Your task to perform on an android device: When is my next appointment? Image 0: 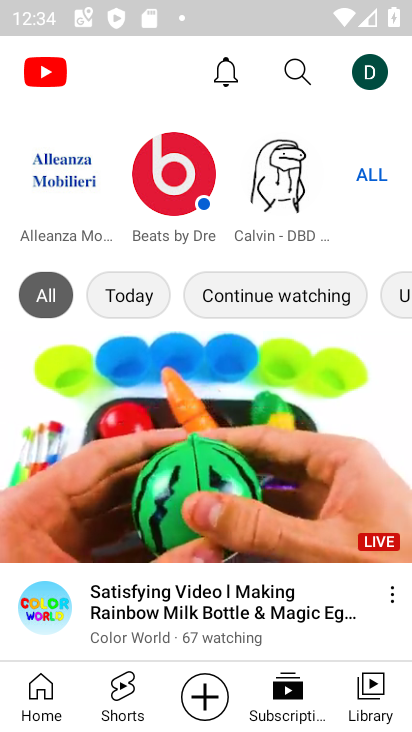
Step 0: press home button
Your task to perform on an android device: When is my next appointment? Image 1: 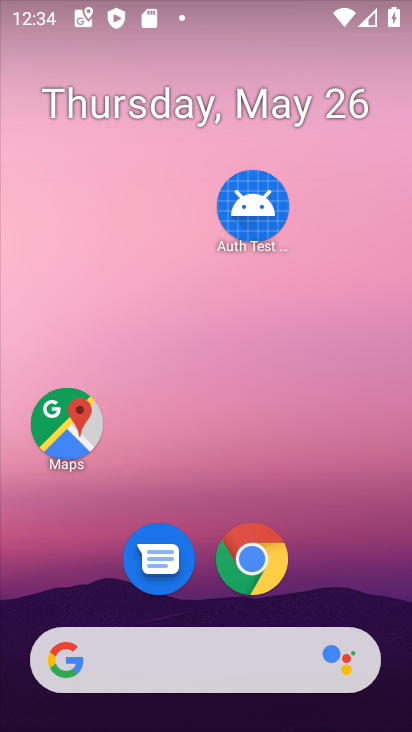
Step 1: drag from (360, 554) to (344, 85)
Your task to perform on an android device: When is my next appointment? Image 2: 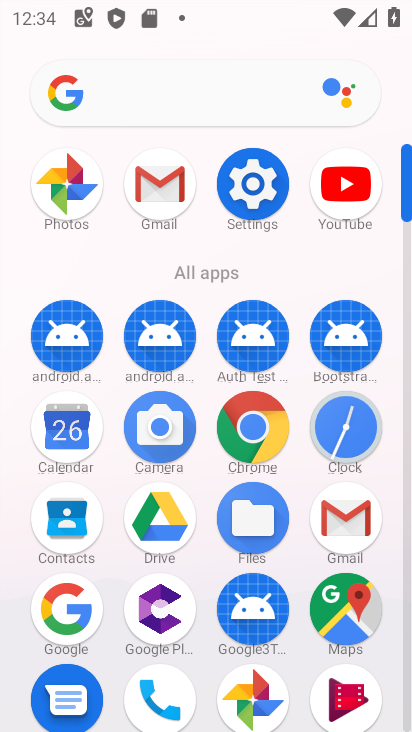
Step 2: click (70, 409)
Your task to perform on an android device: When is my next appointment? Image 3: 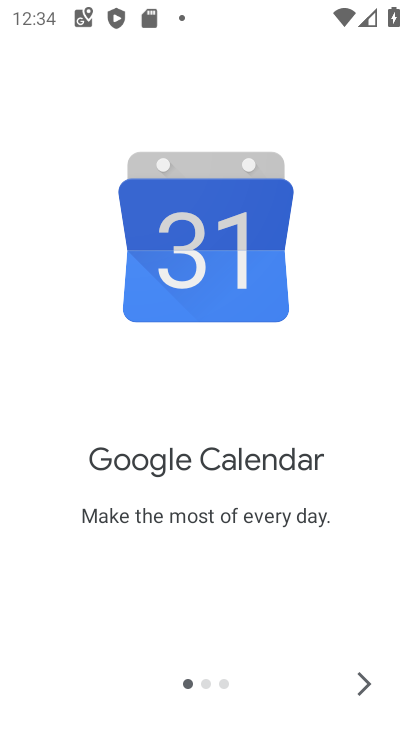
Step 3: click (364, 675)
Your task to perform on an android device: When is my next appointment? Image 4: 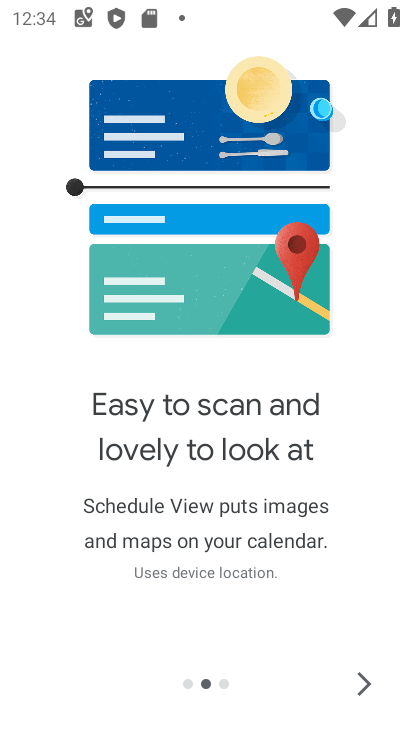
Step 4: click (365, 675)
Your task to perform on an android device: When is my next appointment? Image 5: 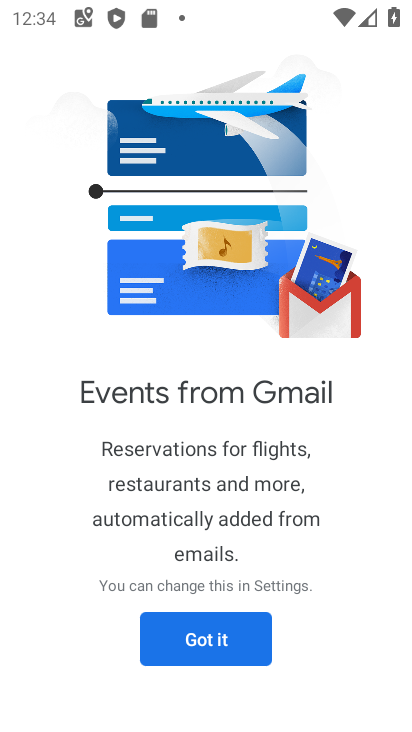
Step 5: click (214, 641)
Your task to perform on an android device: When is my next appointment? Image 6: 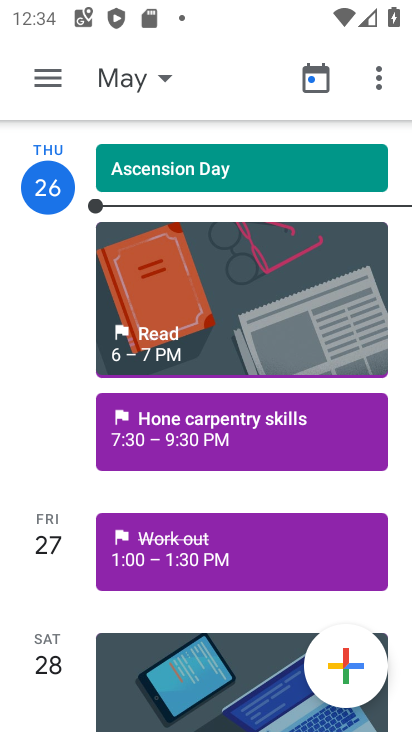
Step 6: drag from (260, 586) to (193, 278)
Your task to perform on an android device: When is my next appointment? Image 7: 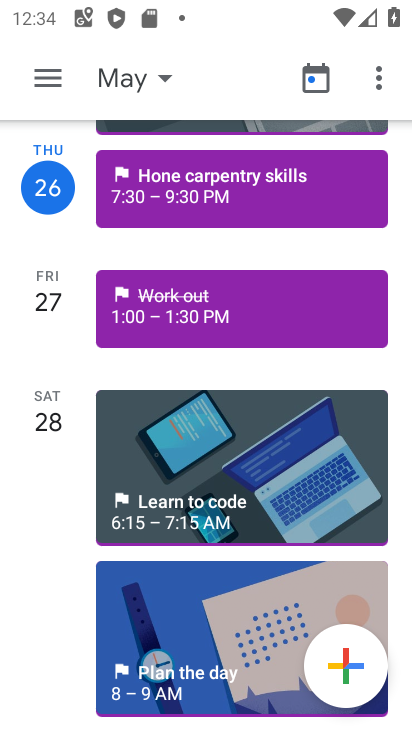
Step 7: drag from (217, 610) to (205, 204)
Your task to perform on an android device: When is my next appointment? Image 8: 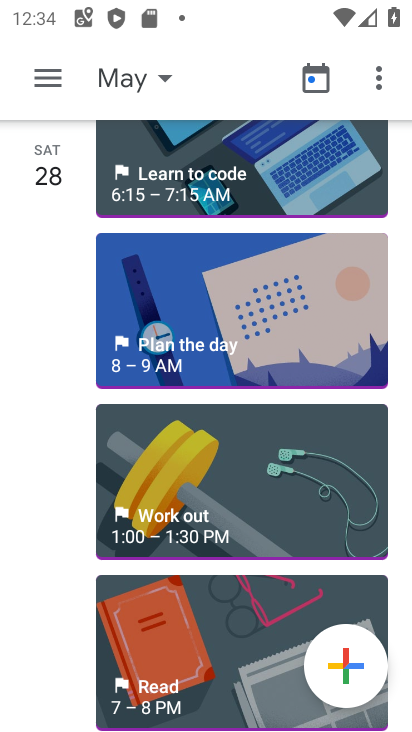
Step 8: drag from (170, 659) to (181, 308)
Your task to perform on an android device: When is my next appointment? Image 9: 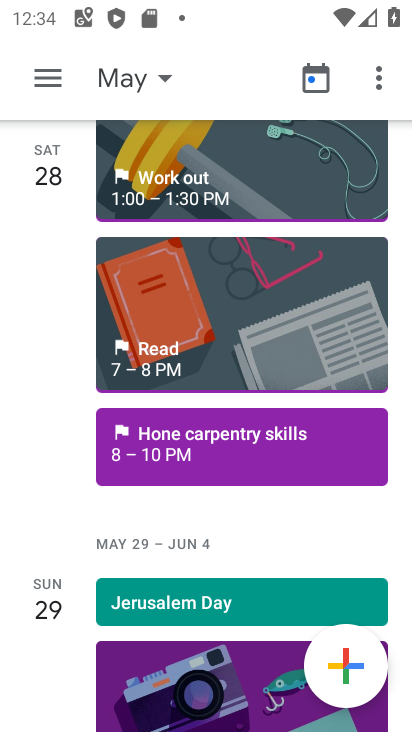
Step 9: drag from (220, 646) to (192, 405)
Your task to perform on an android device: When is my next appointment? Image 10: 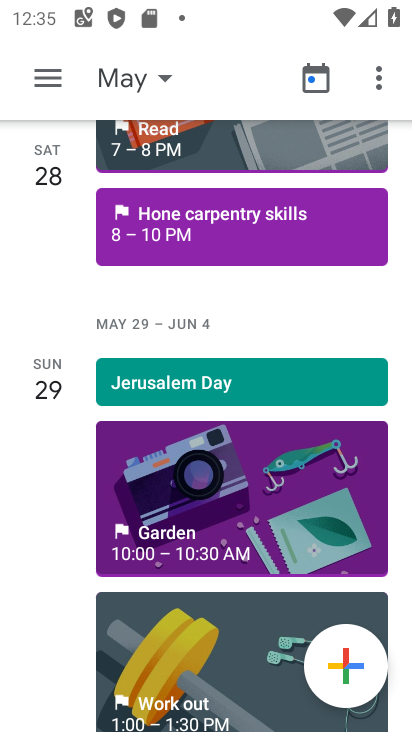
Step 10: drag from (188, 616) to (184, 210)
Your task to perform on an android device: When is my next appointment? Image 11: 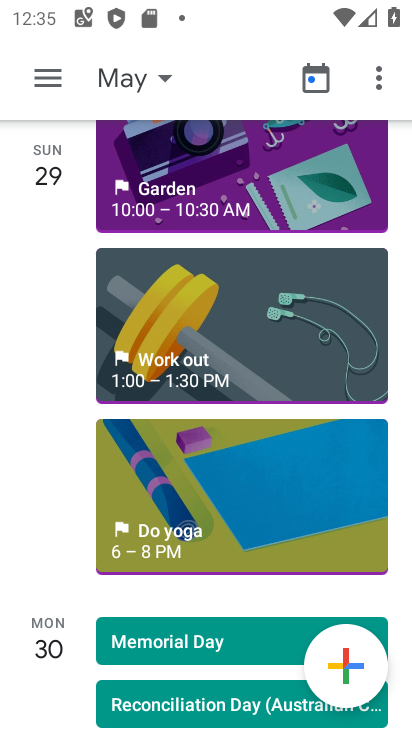
Step 11: drag from (202, 676) to (162, 283)
Your task to perform on an android device: When is my next appointment? Image 12: 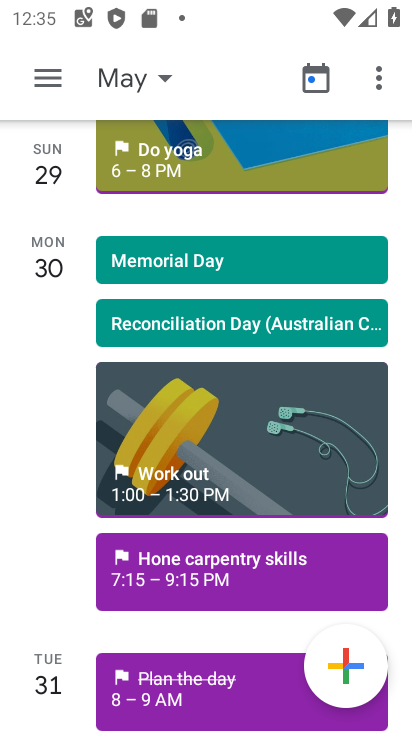
Step 12: drag from (185, 675) to (155, 284)
Your task to perform on an android device: When is my next appointment? Image 13: 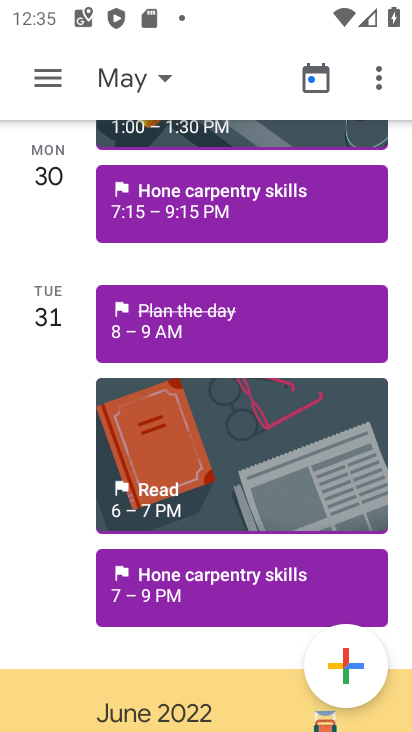
Step 13: drag from (180, 624) to (159, 228)
Your task to perform on an android device: When is my next appointment? Image 14: 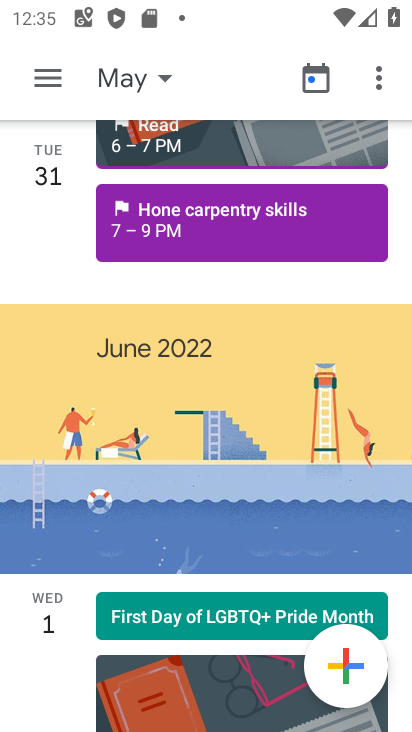
Step 14: drag from (170, 685) to (148, 335)
Your task to perform on an android device: When is my next appointment? Image 15: 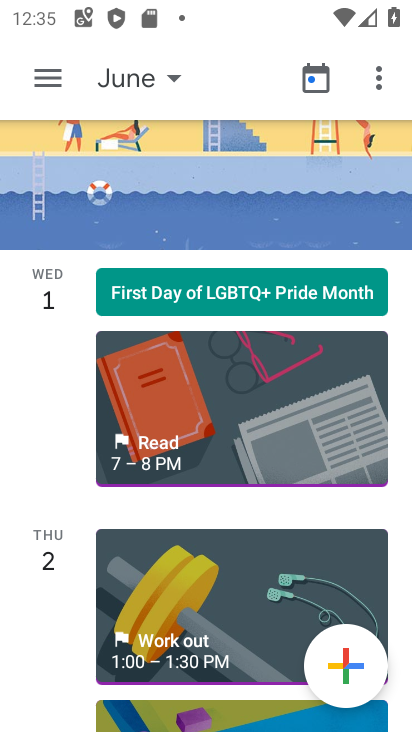
Step 15: click (149, 336)
Your task to perform on an android device: When is my next appointment? Image 16: 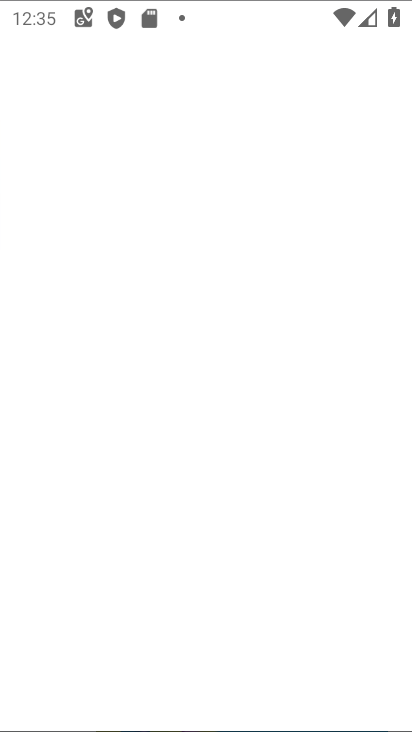
Step 16: drag from (174, 591) to (139, 165)
Your task to perform on an android device: When is my next appointment? Image 17: 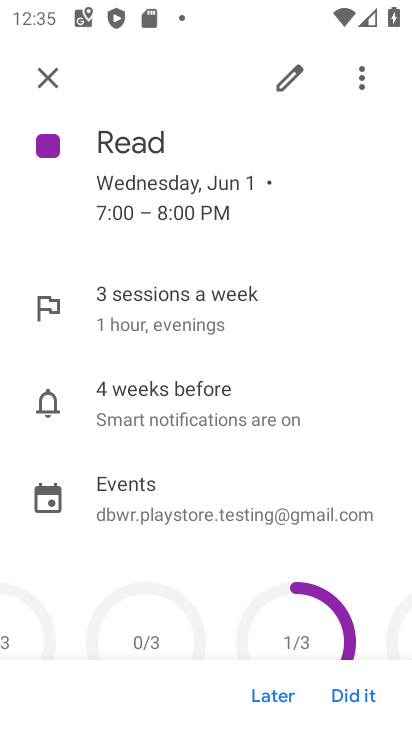
Step 17: click (55, 78)
Your task to perform on an android device: When is my next appointment? Image 18: 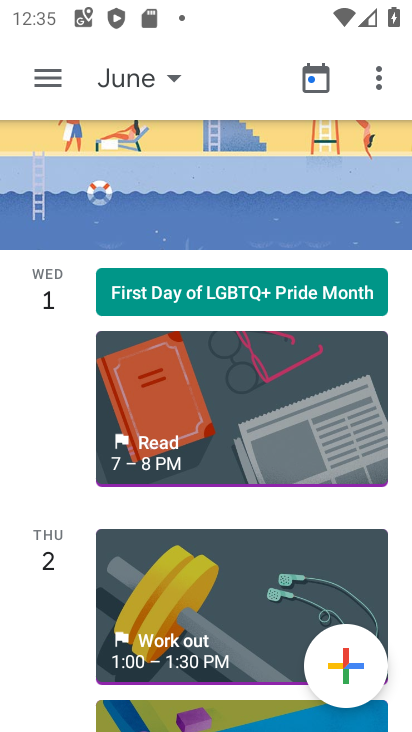
Step 18: drag from (215, 571) to (163, 159)
Your task to perform on an android device: When is my next appointment? Image 19: 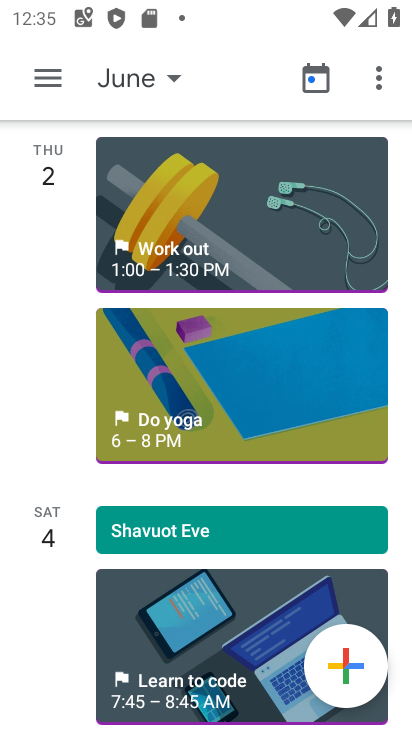
Step 19: drag from (181, 637) to (152, 343)
Your task to perform on an android device: When is my next appointment? Image 20: 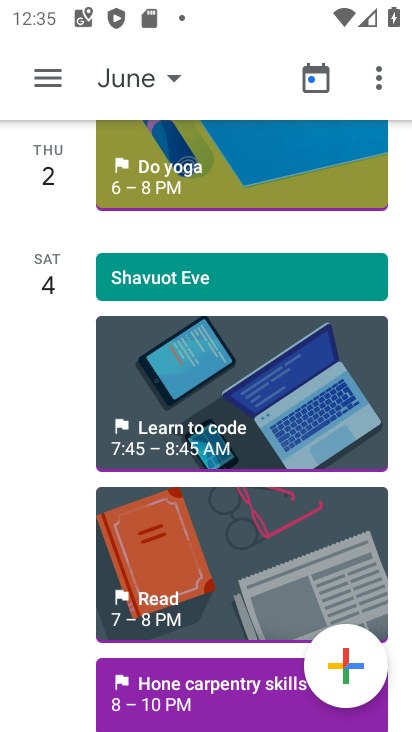
Step 20: drag from (179, 688) to (156, 261)
Your task to perform on an android device: When is my next appointment? Image 21: 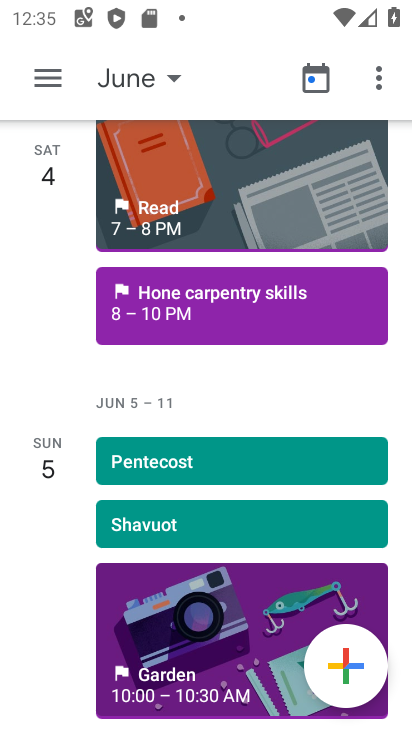
Step 21: drag from (174, 648) to (137, 268)
Your task to perform on an android device: When is my next appointment? Image 22: 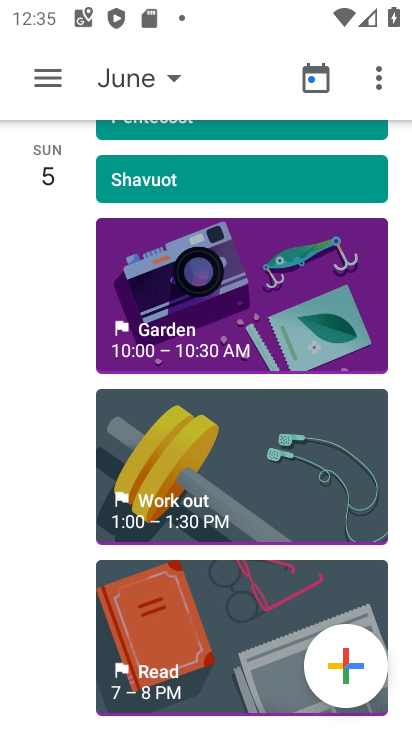
Step 22: drag from (170, 662) to (137, 225)
Your task to perform on an android device: When is my next appointment? Image 23: 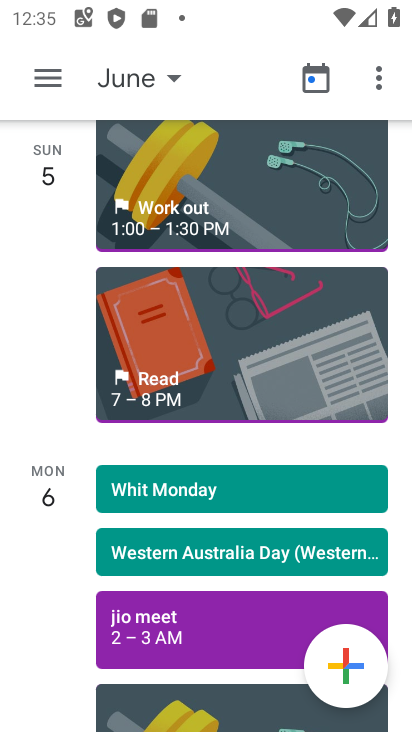
Step 23: click (164, 629)
Your task to perform on an android device: When is my next appointment? Image 24: 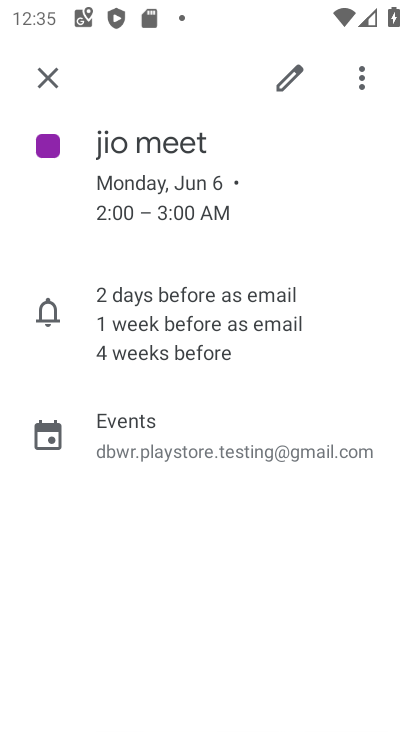
Step 24: task complete